Your task to perform on an android device: Open Chrome and go to settings Image 0: 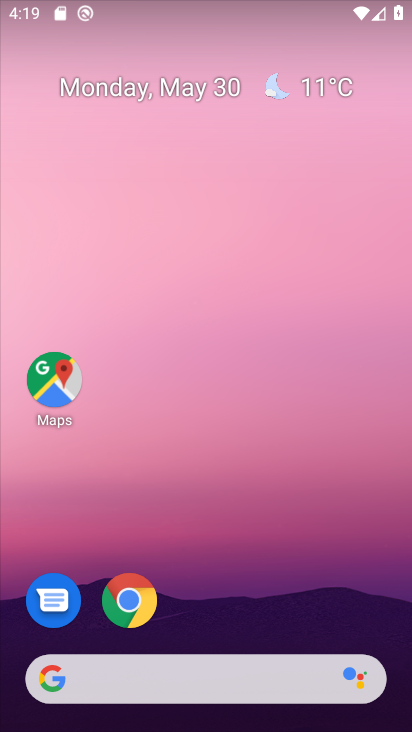
Step 0: drag from (296, 475) to (289, 201)
Your task to perform on an android device: Open Chrome and go to settings Image 1: 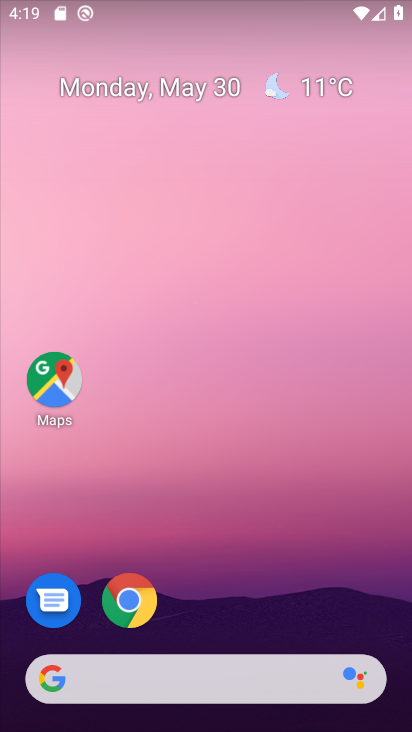
Step 1: drag from (283, 514) to (238, 80)
Your task to perform on an android device: Open Chrome and go to settings Image 2: 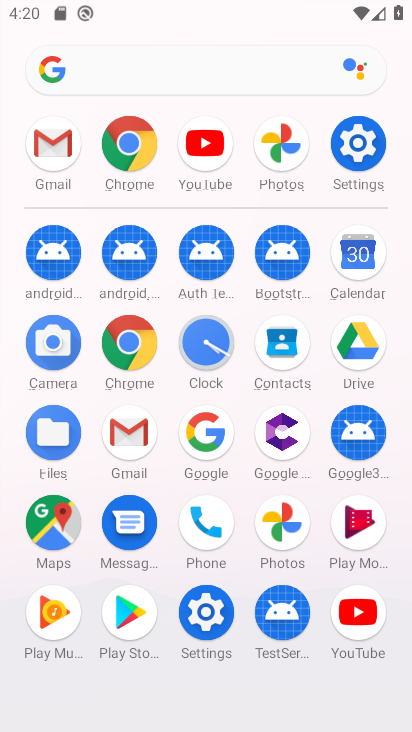
Step 2: click (134, 151)
Your task to perform on an android device: Open Chrome and go to settings Image 3: 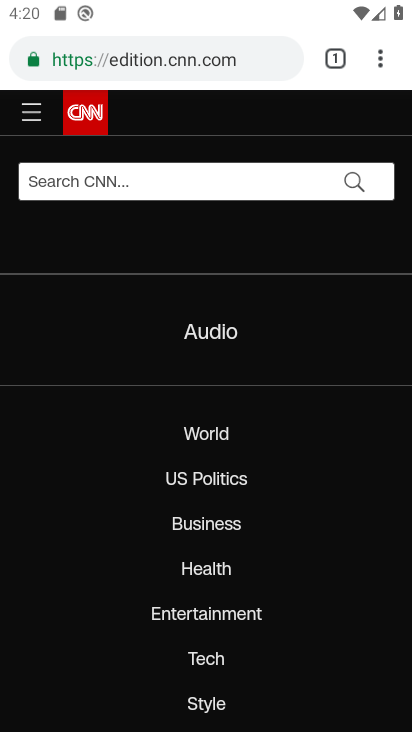
Step 3: task complete